Your task to perform on an android device: read, delete, or share a saved page in the chrome app Image 0: 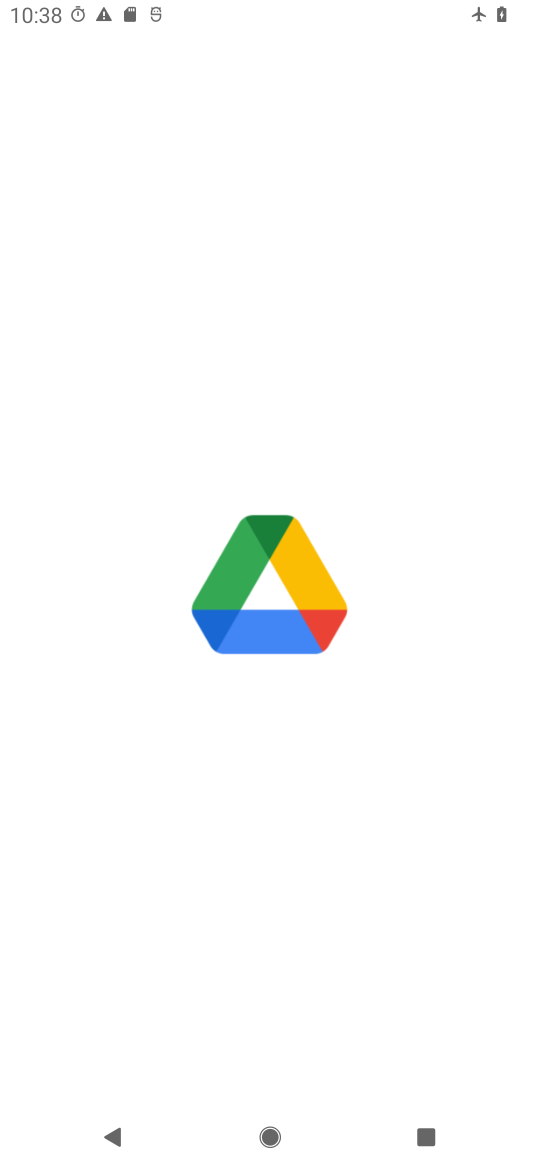
Step 0: press home button
Your task to perform on an android device: read, delete, or share a saved page in the chrome app Image 1: 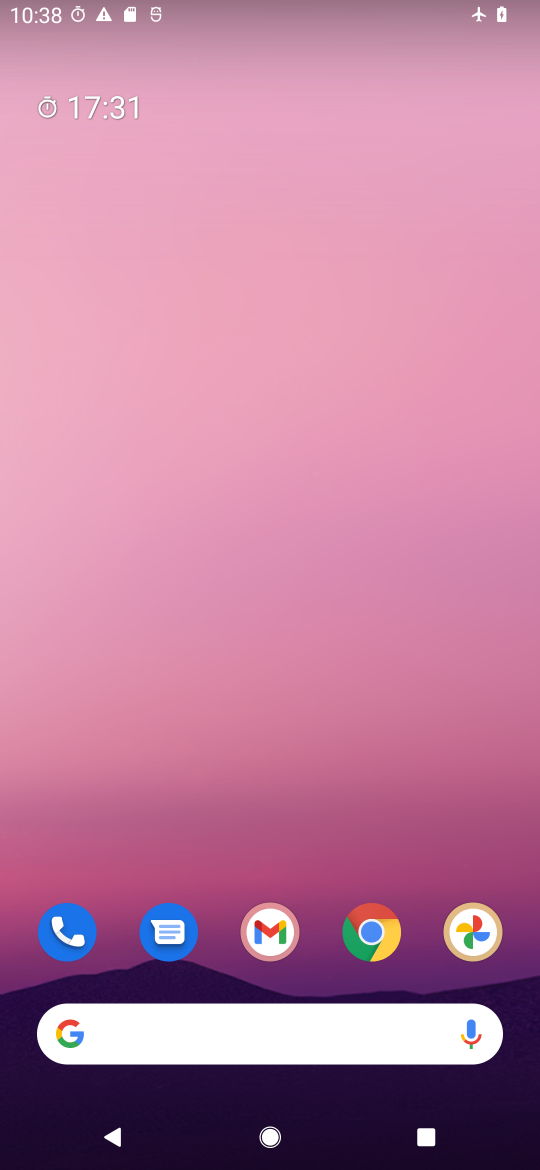
Step 1: click (364, 929)
Your task to perform on an android device: read, delete, or share a saved page in the chrome app Image 2: 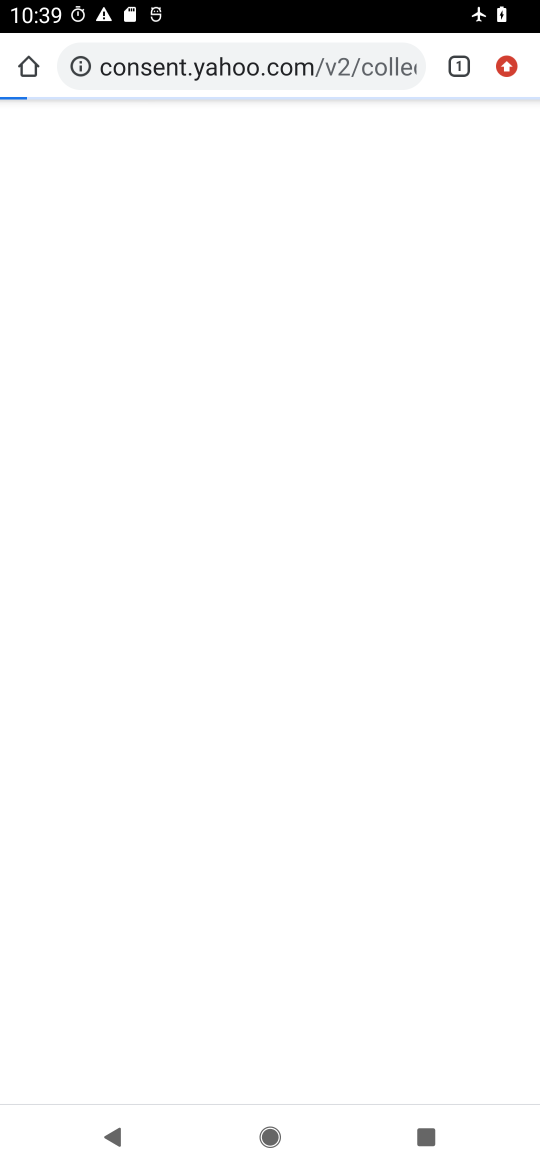
Step 2: click (515, 71)
Your task to perform on an android device: read, delete, or share a saved page in the chrome app Image 3: 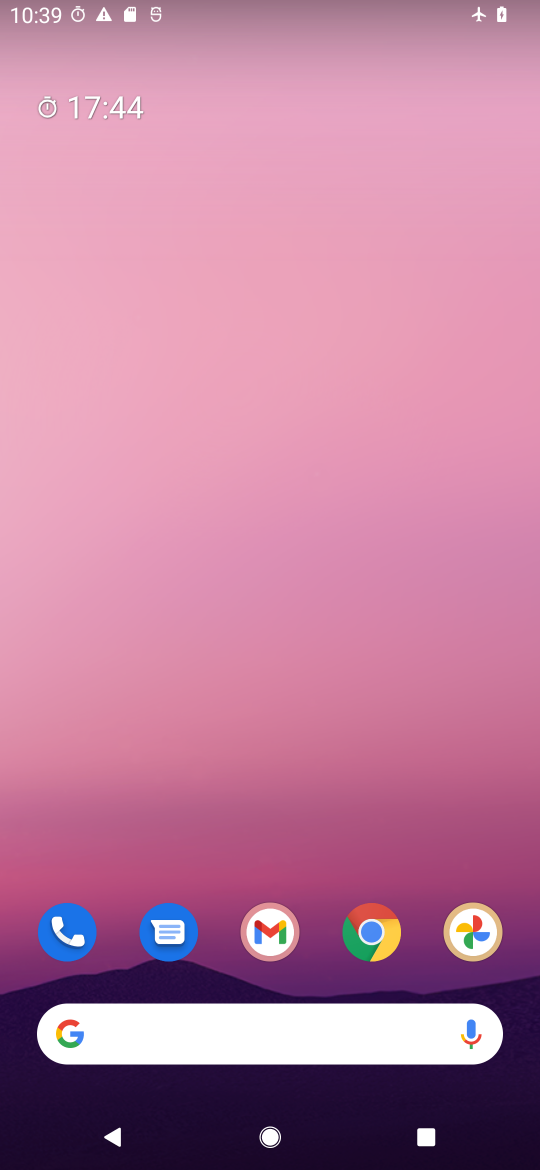
Step 3: drag from (334, 838) to (340, 276)
Your task to perform on an android device: read, delete, or share a saved page in the chrome app Image 4: 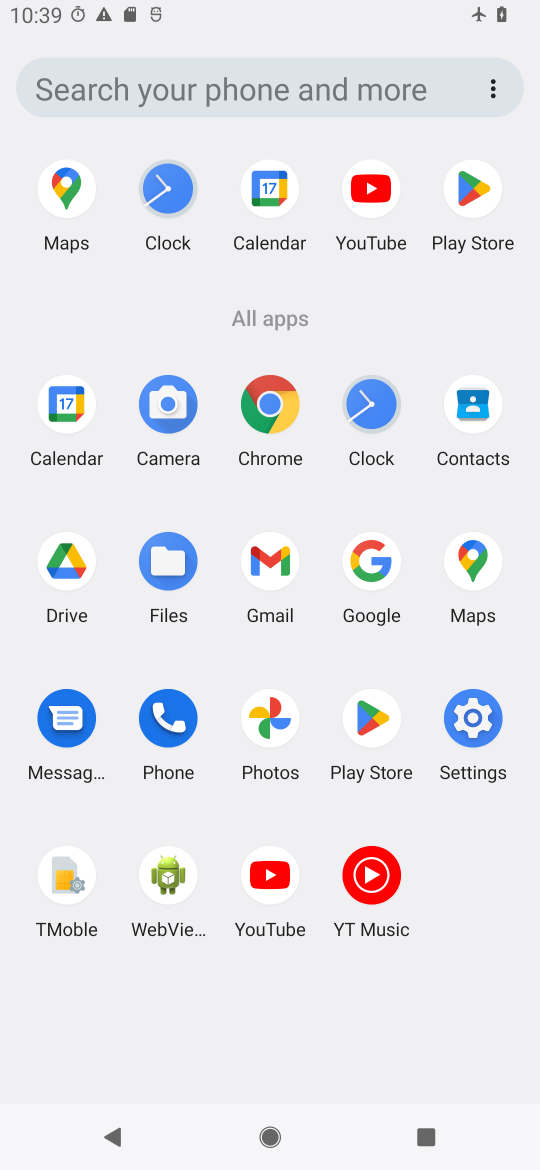
Step 4: click (250, 429)
Your task to perform on an android device: read, delete, or share a saved page in the chrome app Image 5: 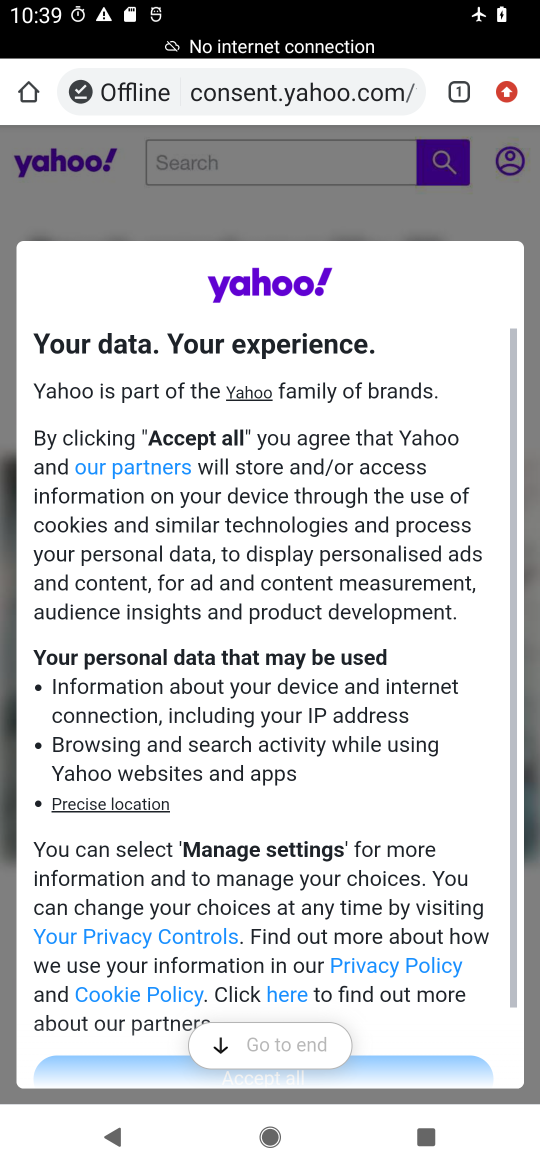
Step 5: click (506, 67)
Your task to perform on an android device: read, delete, or share a saved page in the chrome app Image 6: 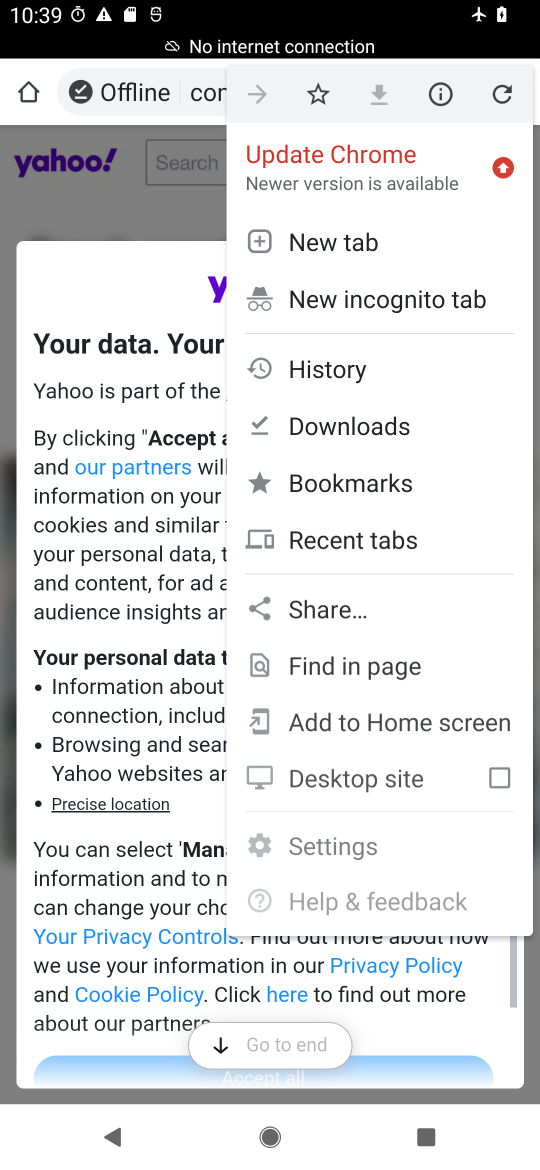
Step 6: click (507, 93)
Your task to perform on an android device: read, delete, or share a saved page in the chrome app Image 7: 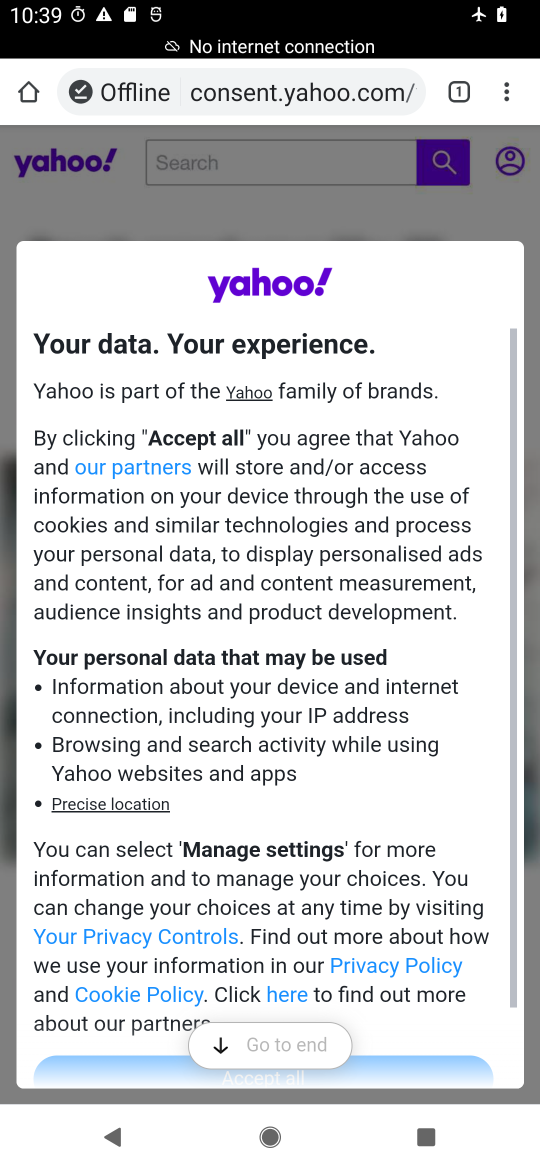
Step 7: click (506, 99)
Your task to perform on an android device: read, delete, or share a saved page in the chrome app Image 8: 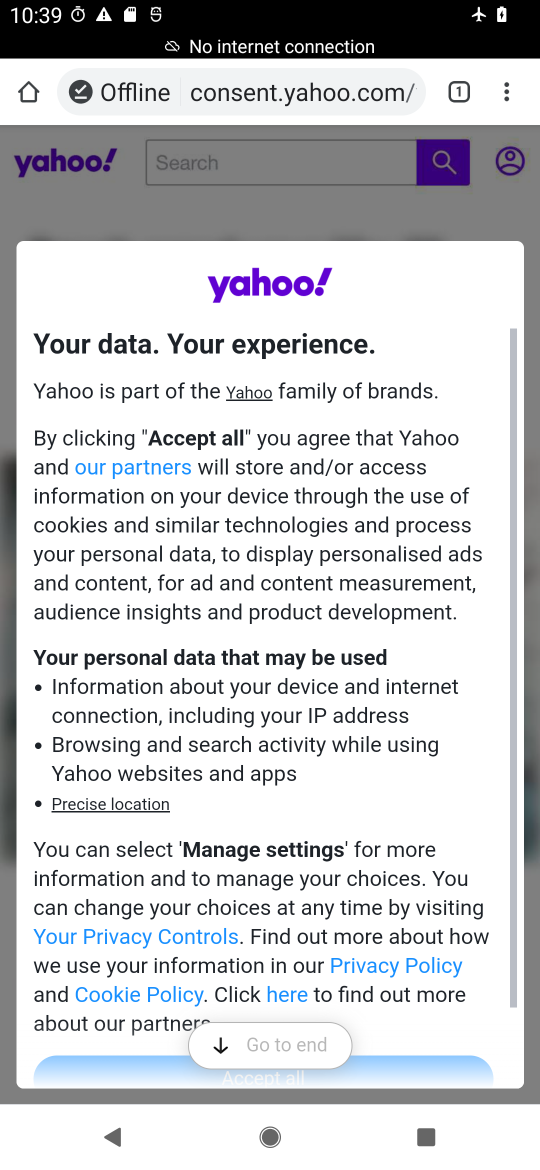
Step 8: click (518, 91)
Your task to perform on an android device: read, delete, or share a saved page in the chrome app Image 9: 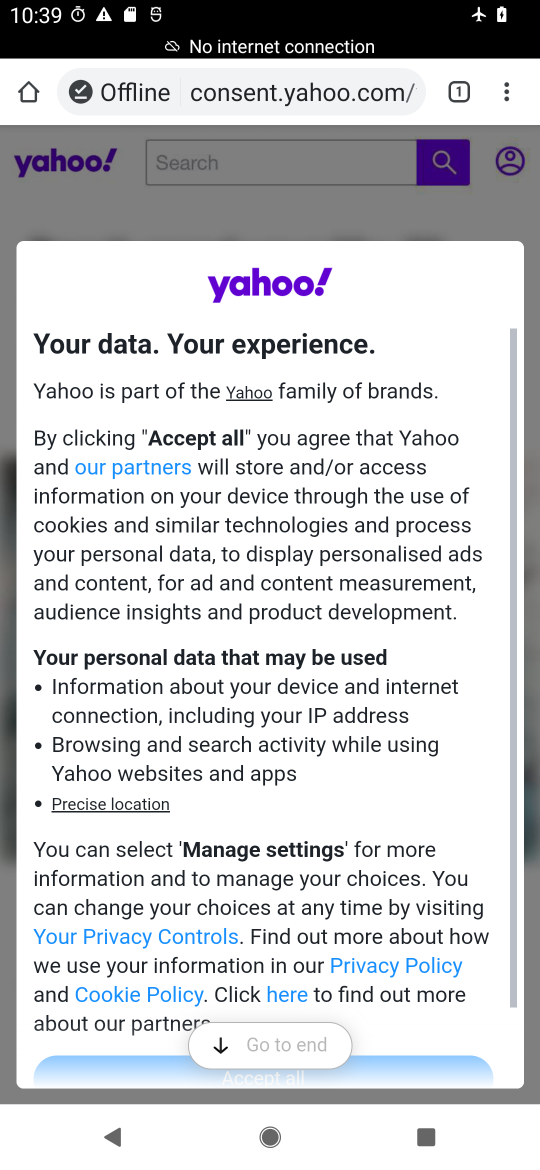
Step 9: task complete